Your task to perform on an android device: What time is it in Beijing? Image 0: 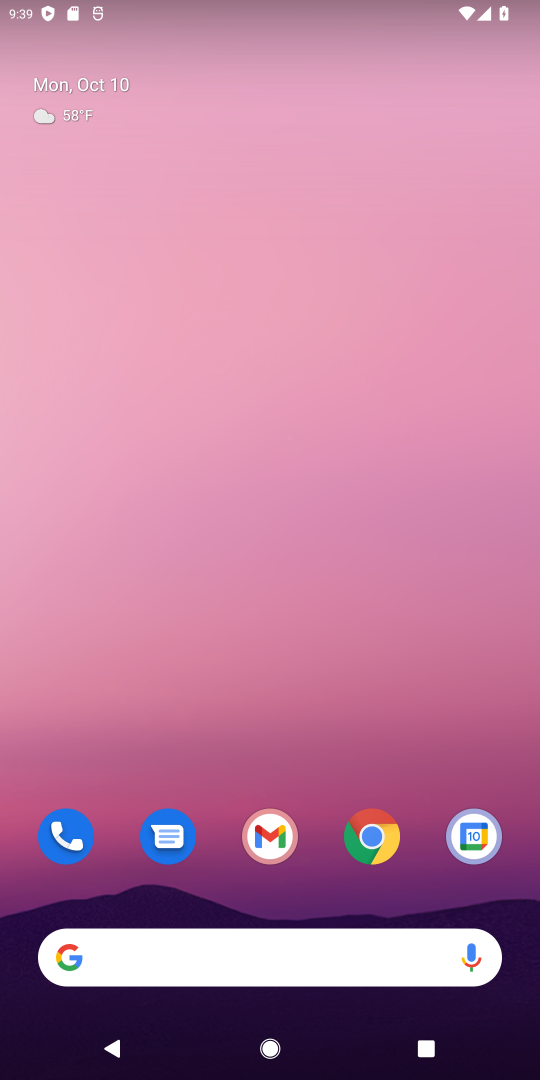
Step 0: drag from (337, 955) to (329, 130)
Your task to perform on an android device: What time is it in Beijing? Image 1: 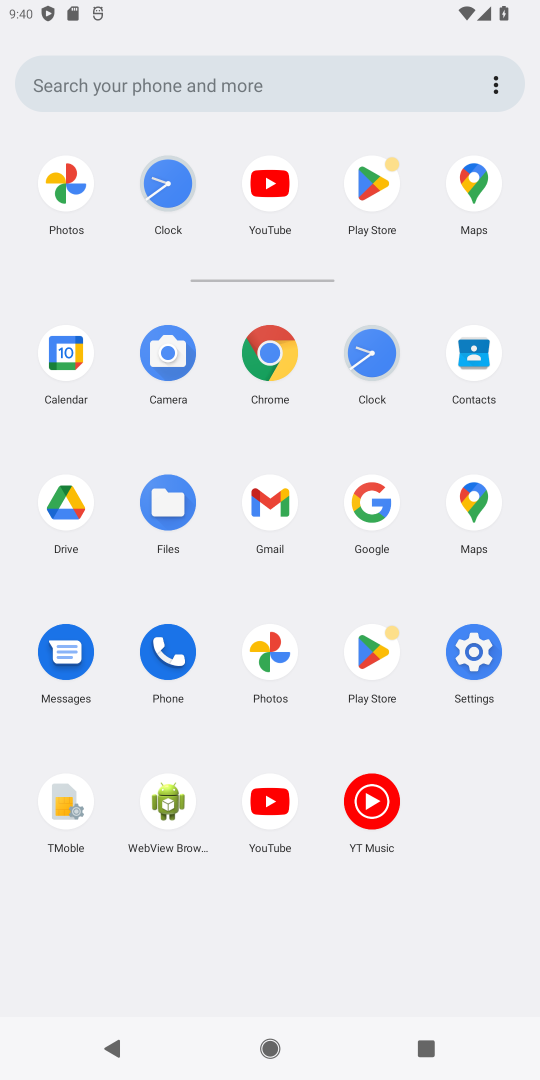
Step 1: click (379, 505)
Your task to perform on an android device: What time is it in Beijing? Image 2: 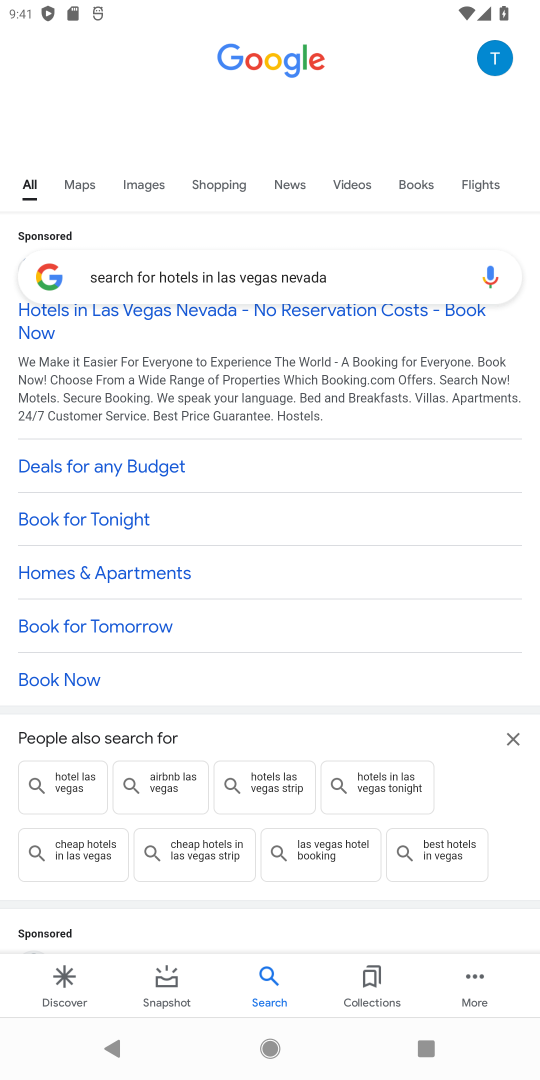
Step 2: click (331, 280)
Your task to perform on an android device: What time is it in Beijing? Image 3: 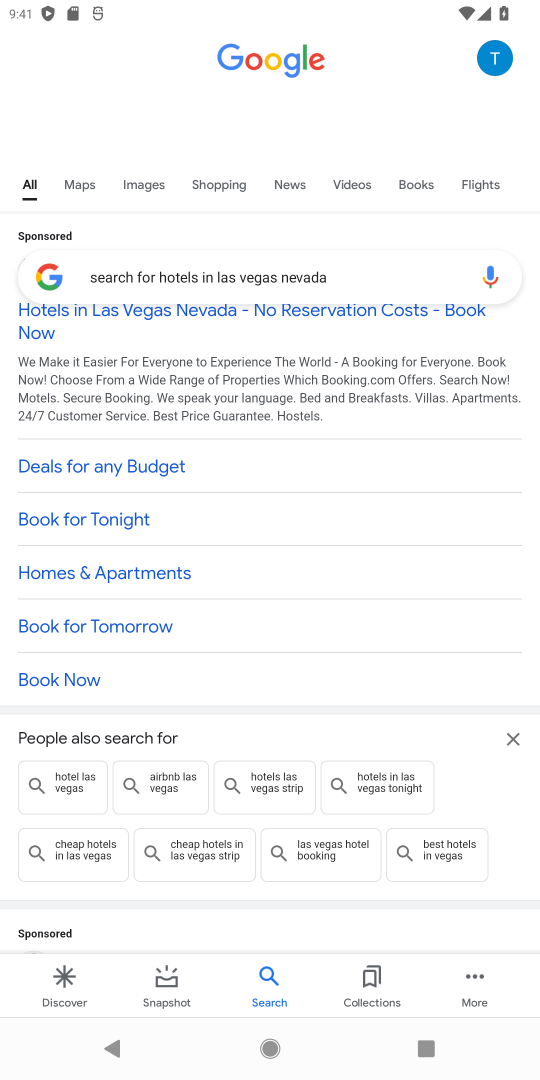
Step 3: type "What time is it in Beijing?"
Your task to perform on an android device: What time is it in Beijing? Image 4: 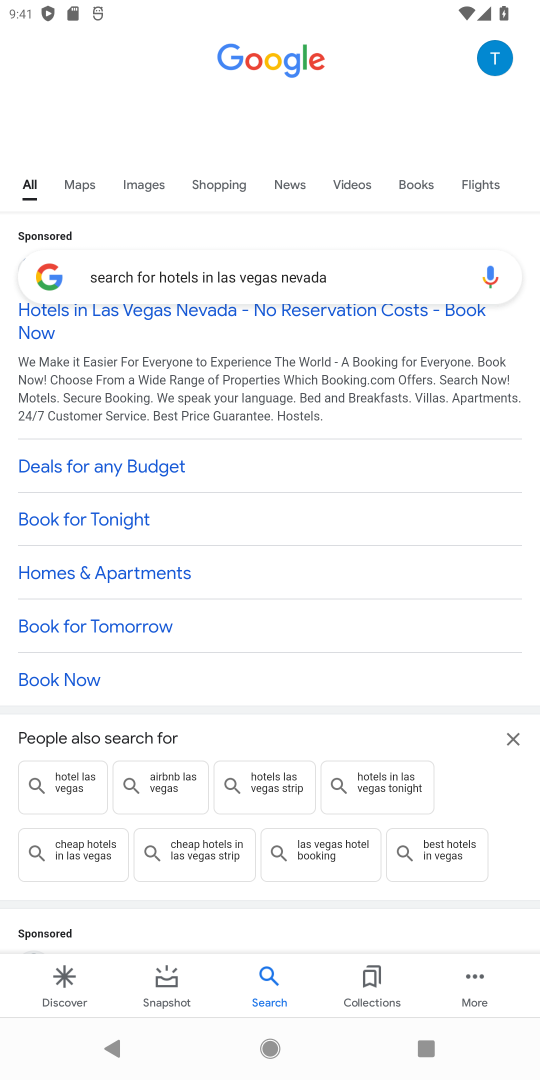
Step 4: click (331, 280)
Your task to perform on an android device: What time is it in Beijing? Image 5: 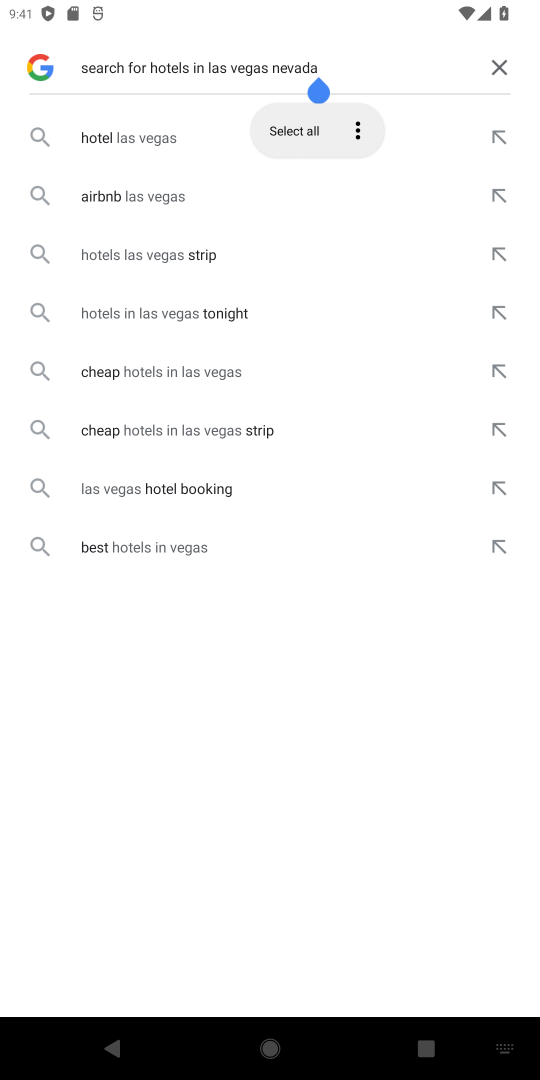
Step 5: click (500, 67)
Your task to perform on an android device: What time is it in Beijing? Image 6: 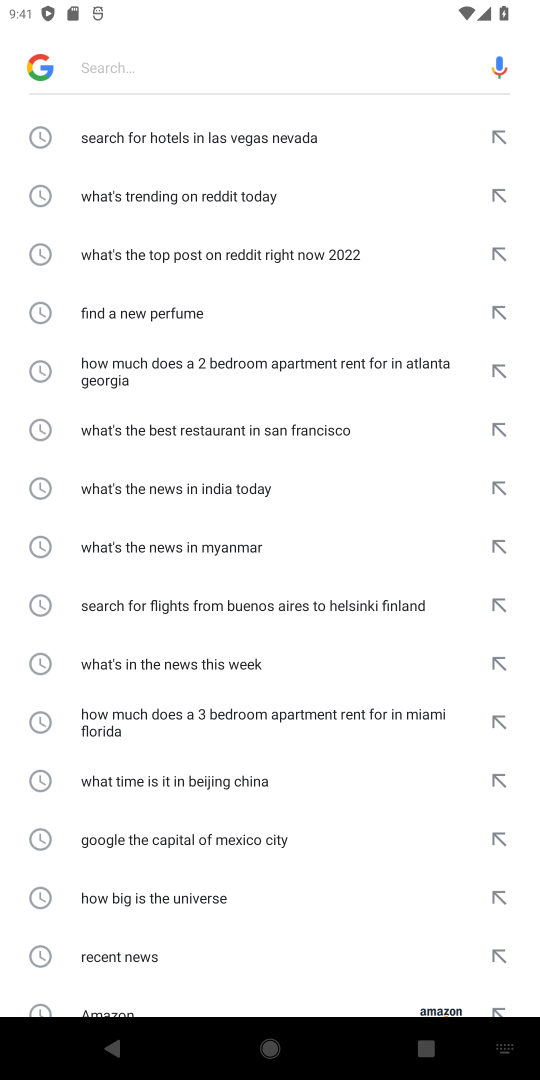
Step 6: type "What time is it in Beijing?"
Your task to perform on an android device: What time is it in Beijing? Image 7: 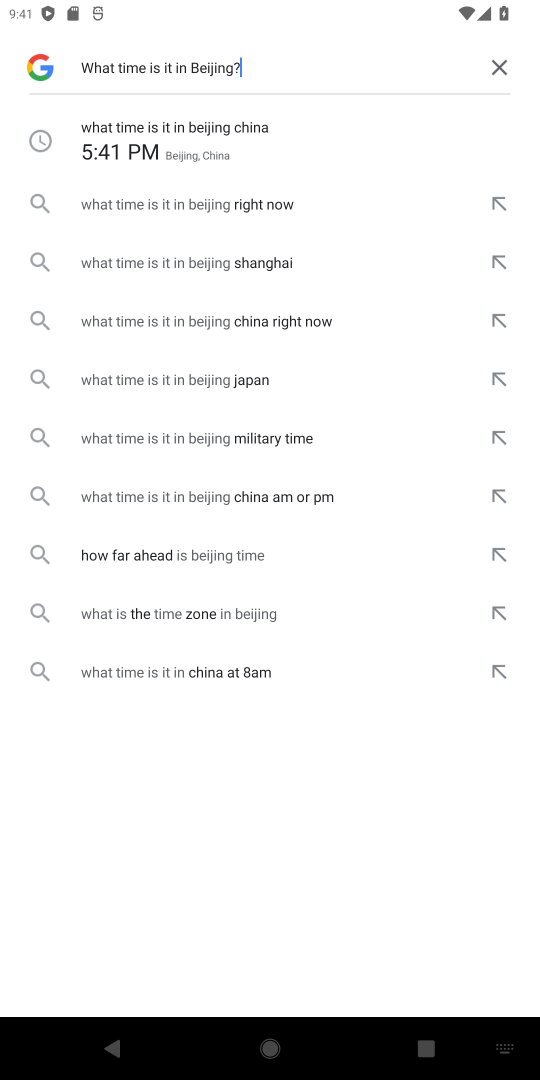
Step 7: click (250, 127)
Your task to perform on an android device: What time is it in Beijing? Image 8: 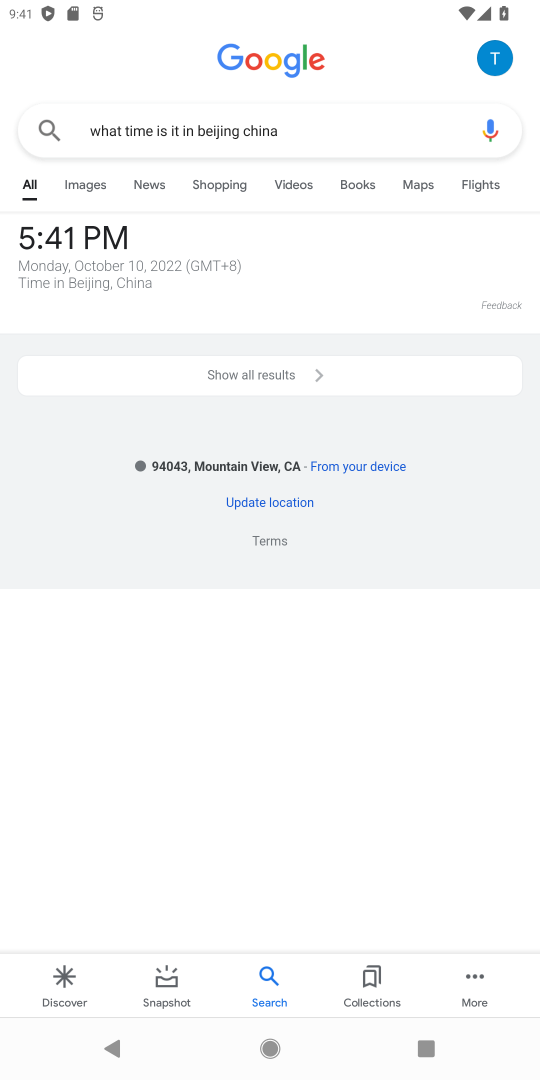
Step 8: task complete